Your task to perform on an android device: turn vacation reply on in the gmail app Image 0: 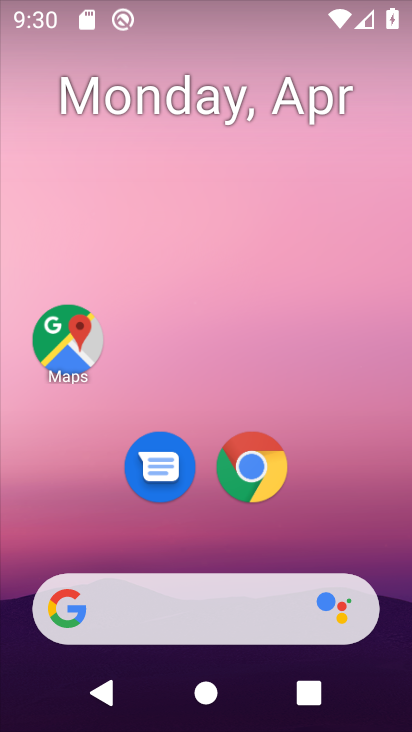
Step 0: drag from (253, 388) to (299, 78)
Your task to perform on an android device: turn vacation reply on in the gmail app Image 1: 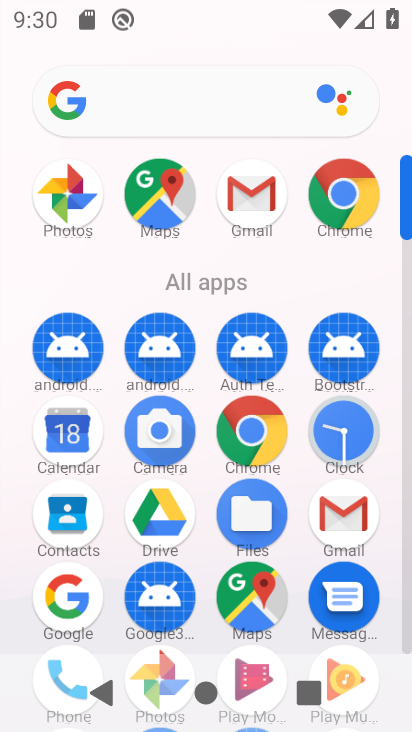
Step 1: click (239, 196)
Your task to perform on an android device: turn vacation reply on in the gmail app Image 2: 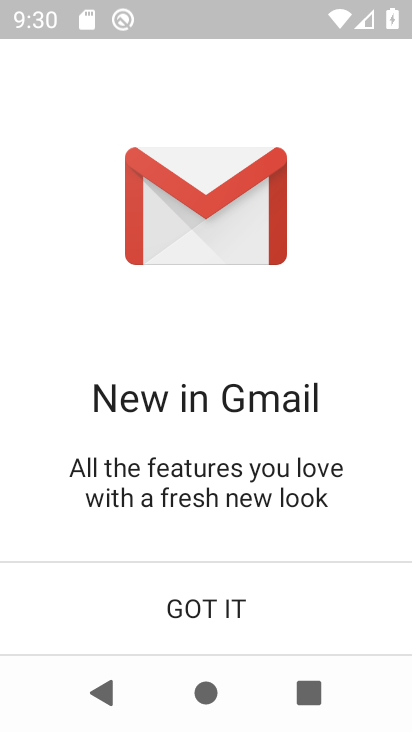
Step 2: click (230, 606)
Your task to perform on an android device: turn vacation reply on in the gmail app Image 3: 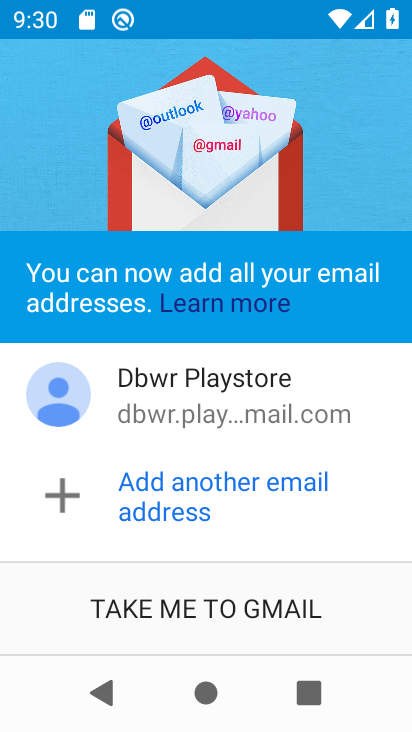
Step 3: click (240, 614)
Your task to perform on an android device: turn vacation reply on in the gmail app Image 4: 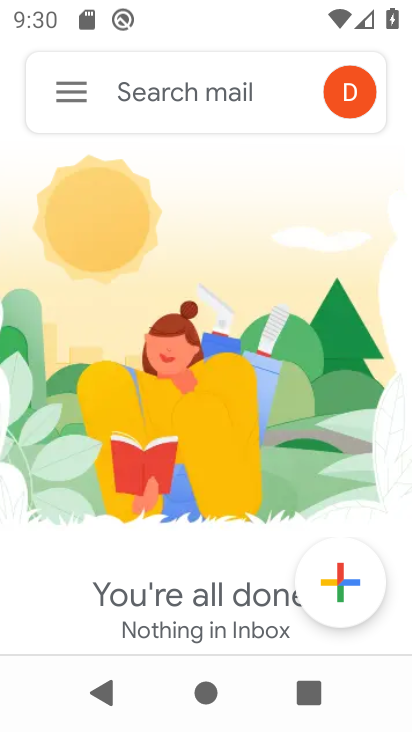
Step 4: click (59, 95)
Your task to perform on an android device: turn vacation reply on in the gmail app Image 5: 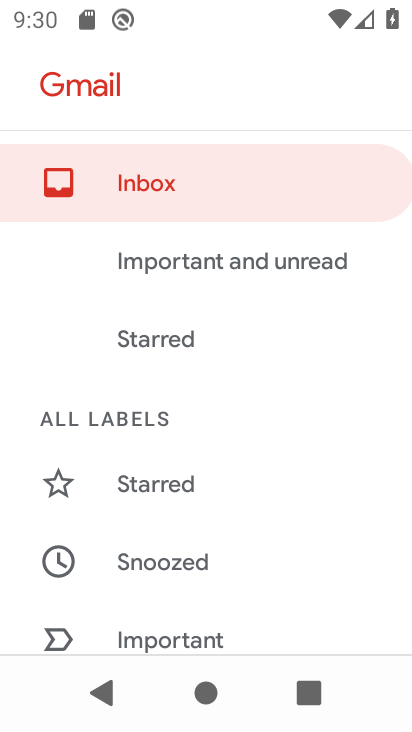
Step 5: drag from (168, 622) to (281, 135)
Your task to perform on an android device: turn vacation reply on in the gmail app Image 6: 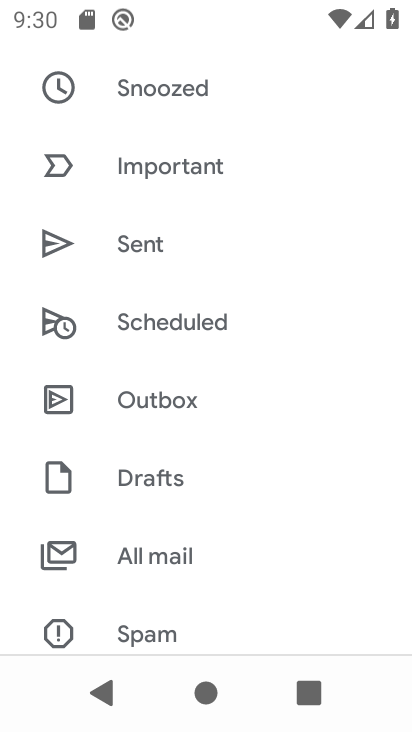
Step 6: drag from (245, 555) to (293, 72)
Your task to perform on an android device: turn vacation reply on in the gmail app Image 7: 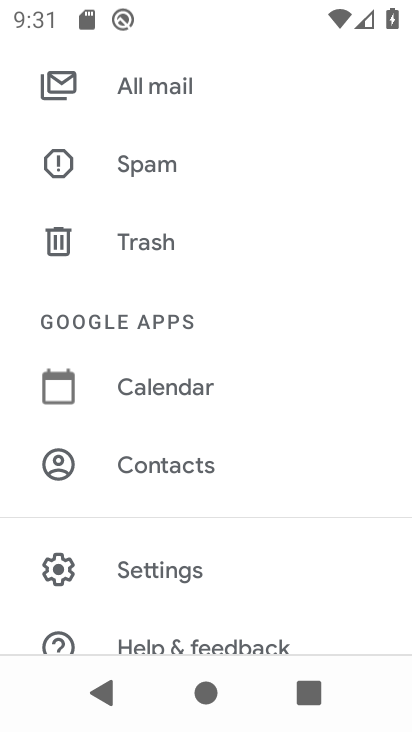
Step 7: click (188, 570)
Your task to perform on an android device: turn vacation reply on in the gmail app Image 8: 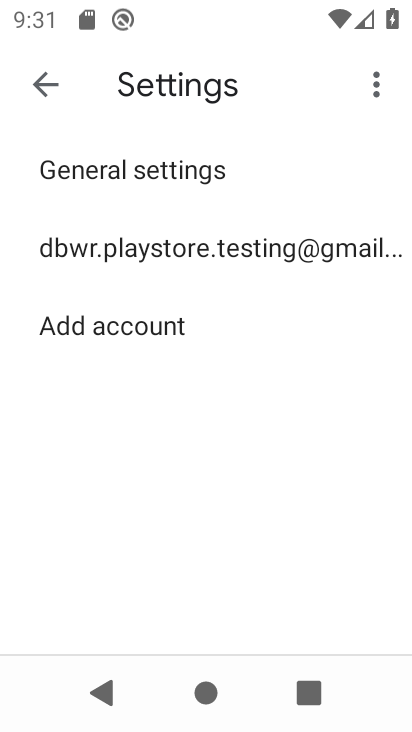
Step 8: drag from (175, 576) to (254, 268)
Your task to perform on an android device: turn vacation reply on in the gmail app Image 9: 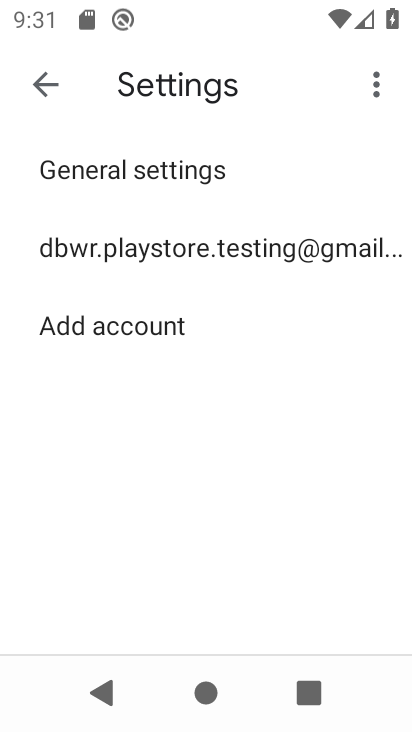
Step 9: click (255, 242)
Your task to perform on an android device: turn vacation reply on in the gmail app Image 10: 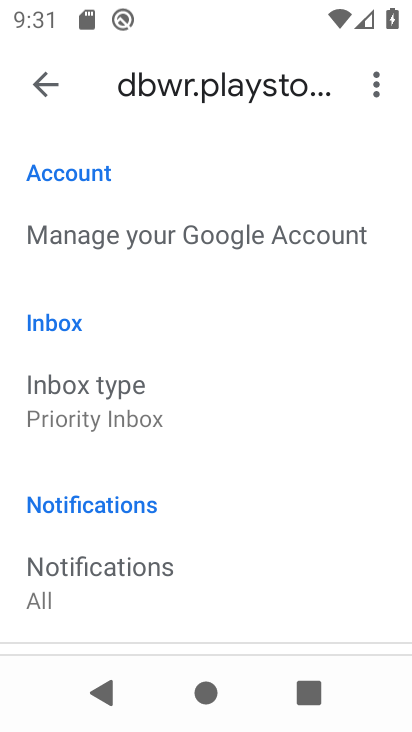
Step 10: drag from (115, 584) to (217, 44)
Your task to perform on an android device: turn vacation reply on in the gmail app Image 11: 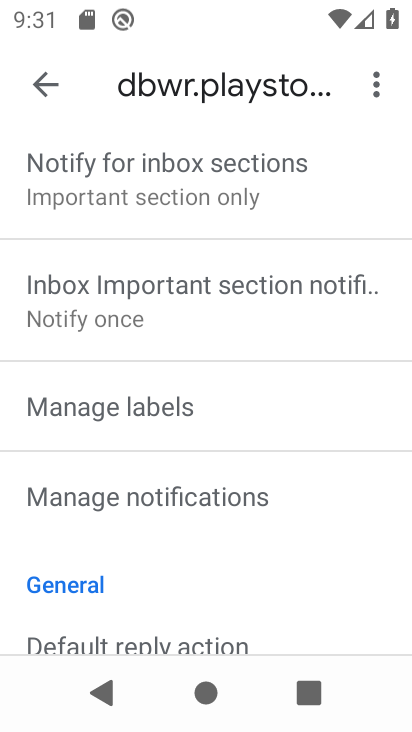
Step 11: drag from (145, 647) to (283, 86)
Your task to perform on an android device: turn vacation reply on in the gmail app Image 12: 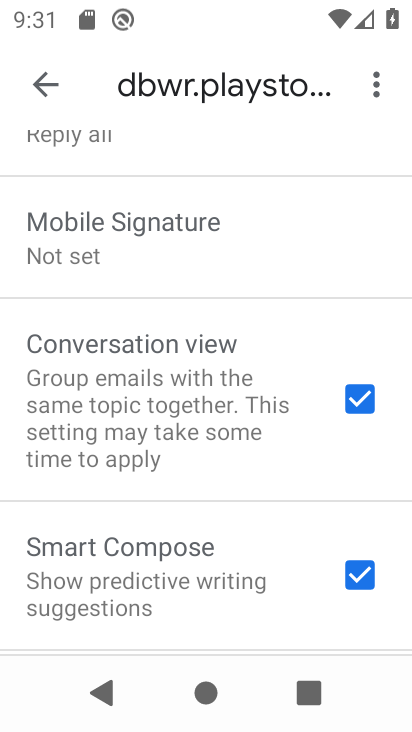
Step 12: drag from (139, 638) to (309, 40)
Your task to perform on an android device: turn vacation reply on in the gmail app Image 13: 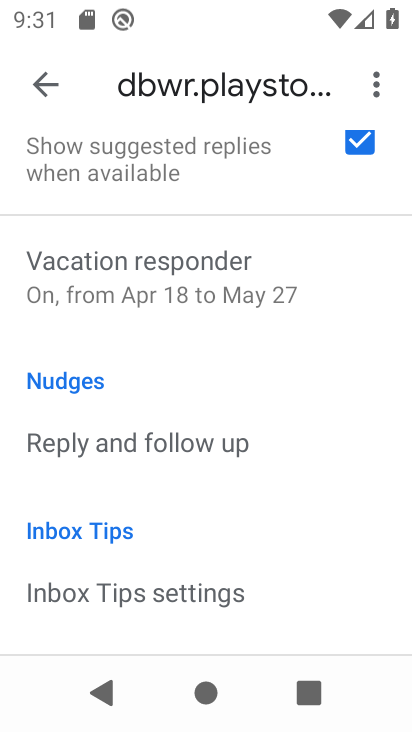
Step 13: click (151, 281)
Your task to perform on an android device: turn vacation reply on in the gmail app Image 14: 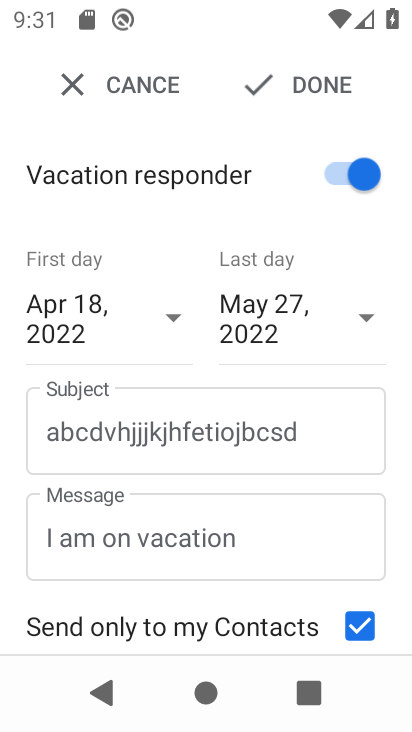
Step 14: task complete